Your task to perform on an android device: Open calendar and show me the fourth week of next month Image 0: 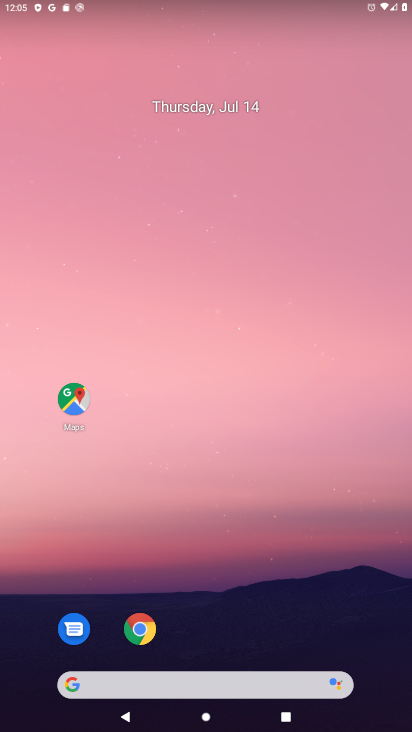
Step 0: drag from (207, 684) to (290, 139)
Your task to perform on an android device: Open calendar and show me the fourth week of next month Image 1: 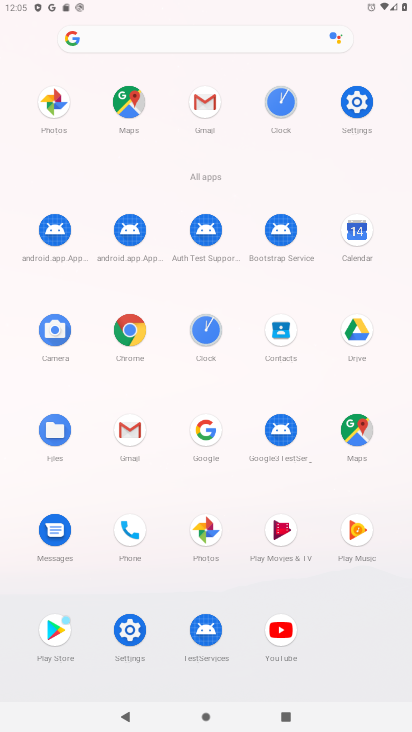
Step 1: click (358, 230)
Your task to perform on an android device: Open calendar and show me the fourth week of next month Image 2: 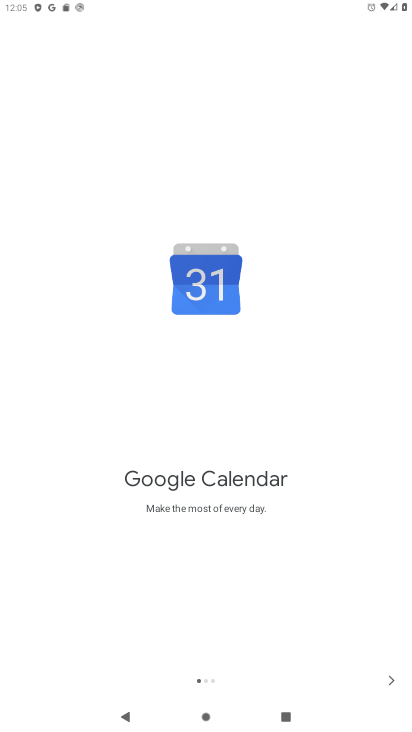
Step 2: click (388, 678)
Your task to perform on an android device: Open calendar and show me the fourth week of next month Image 3: 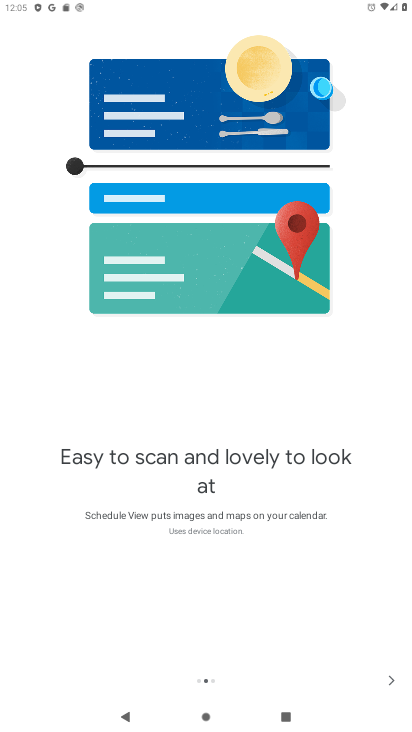
Step 3: click (388, 678)
Your task to perform on an android device: Open calendar and show me the fourth week of next month Image 4: 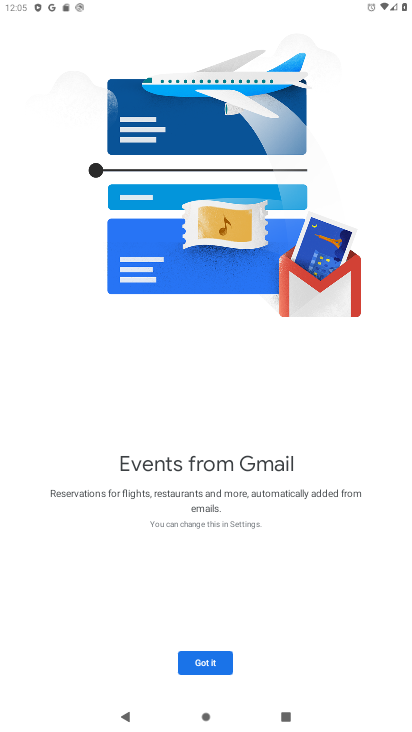
Step 4: click (215, 665)
Your task to perform on an android device: Open calendar and show me the fourth week of next month Image 5: 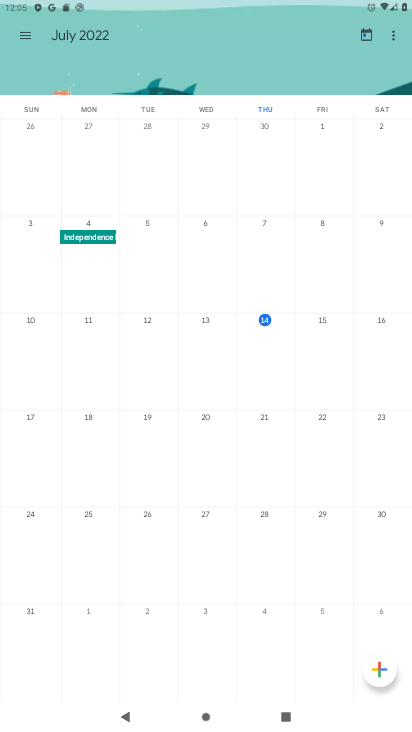
Step 5: drag from (386, 543) to (44, 448)
Your task to perform on an android device: Open calendar and show me the fourth week of next month Image 6: 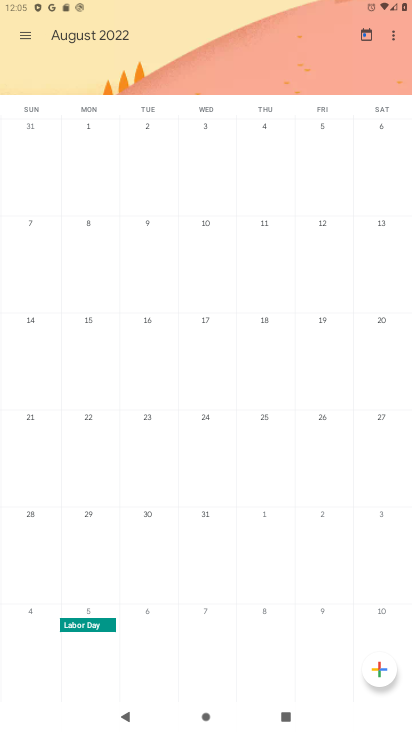
Step 6: click (84, 404)
Your task to perform on an android device: Open calendar and show me the fourth week of next month Image 7: 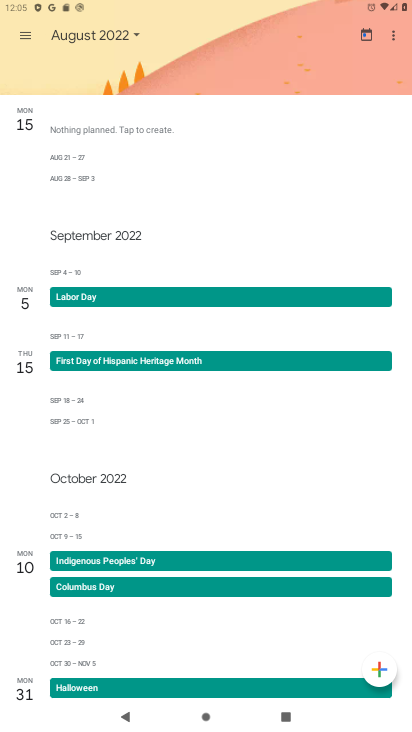
Step 7: click (28, 40)
Your task to perform on an android device: Open calendar and show me the fourth week of next month Image 8: 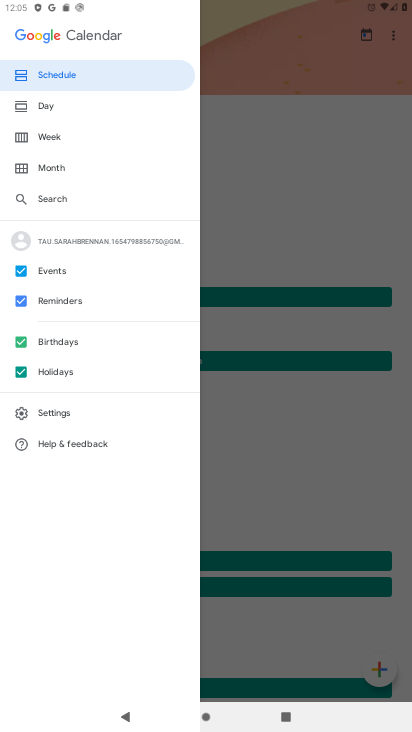
Step 8: click (61, 130)
Your task to perform on an android device: Open calendar and show me the fourth week of next month Image 9: 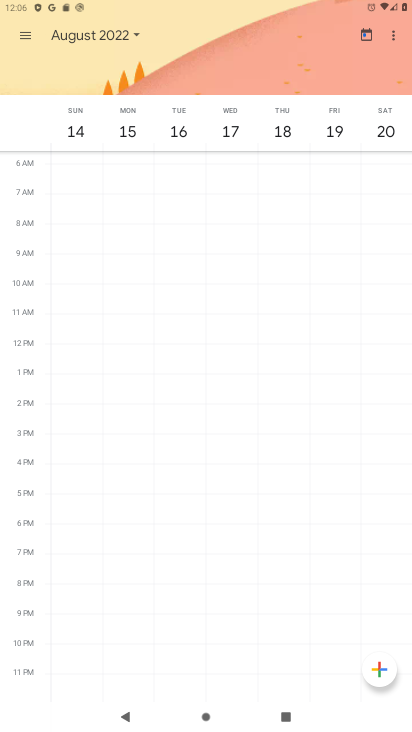
Step 9: task complete